Your task to perform on an android device: Clear all items from cart on newegg.com. Search for dell alienware on newegg.com, select the first entry, add it to the cart, then select checkout. Image 0: 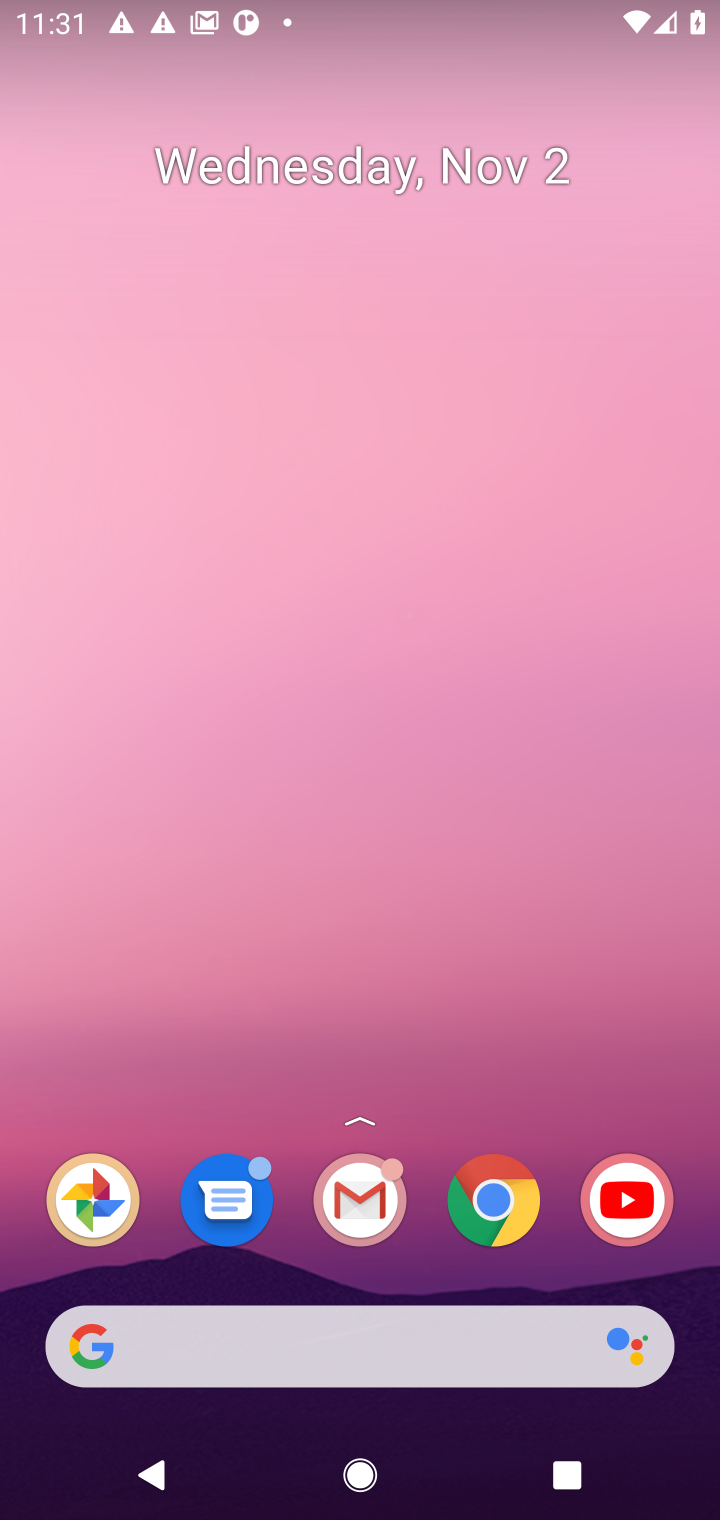
Step 0: click (502, 1211)
Your task to perform on an android device: Clear all items from cart on newegg.com. Search for dell alienware on newegg.com, select the first entry, add it to the cart, then select checkout. Image 1: 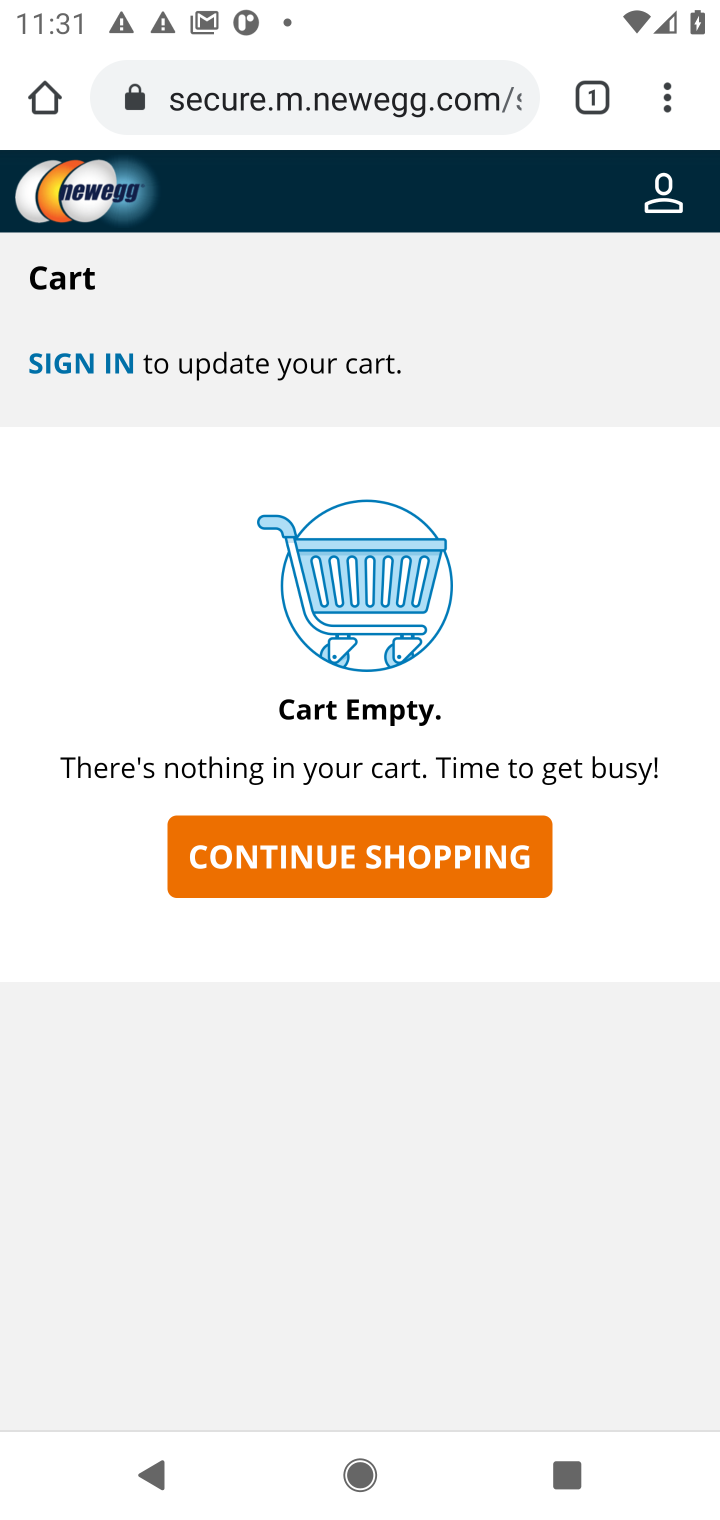
Step 1: press back button
Your task to perform on an android device: Clear all items from cart on newegg.com. Search for dell alienware on newegg.com, select the first entry, add it to the cart, then select checkout. Image 2: 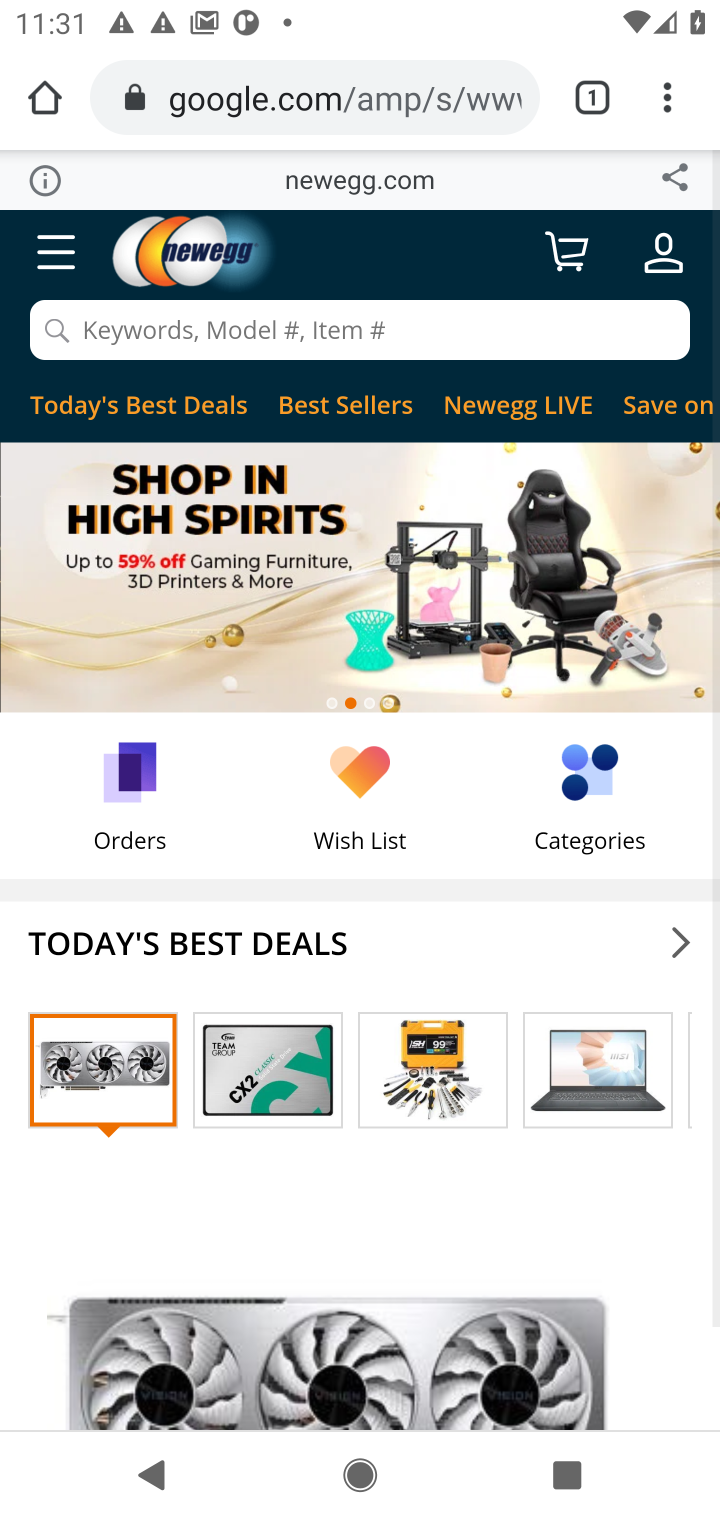
Step 2: click (533, 328)
Your task to perform on an android device: Clear all items from cart on newegg.com. Search for dell alienware on newegg.com, select the first entry, add it to the cart, then select checkout. Image 3: 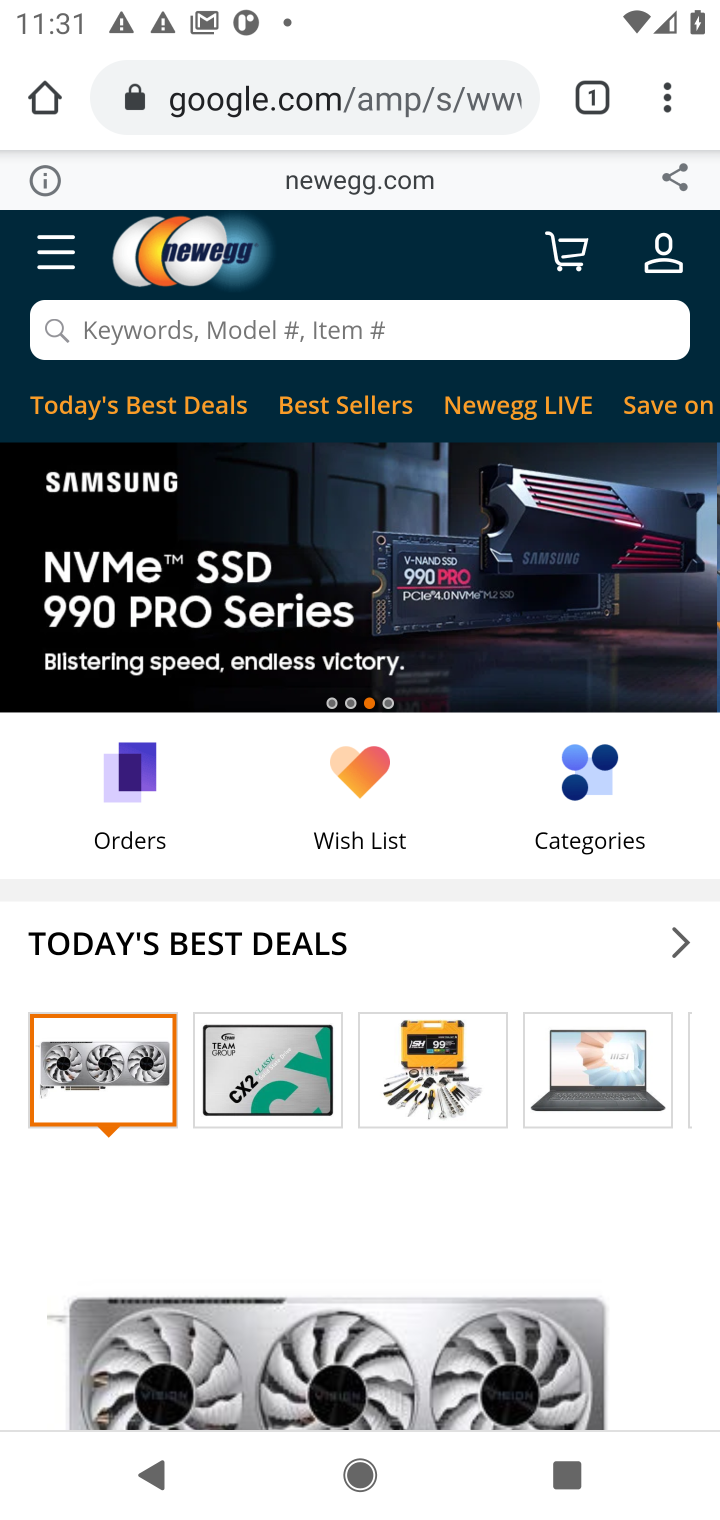
Step 3: click (502, 328)
Your task to perform on an android device: Clear all items from cart on newegg.com. Search for dell alienware on newegg.com, select the first entry, add it to the cart, then select checkout. Image 4: 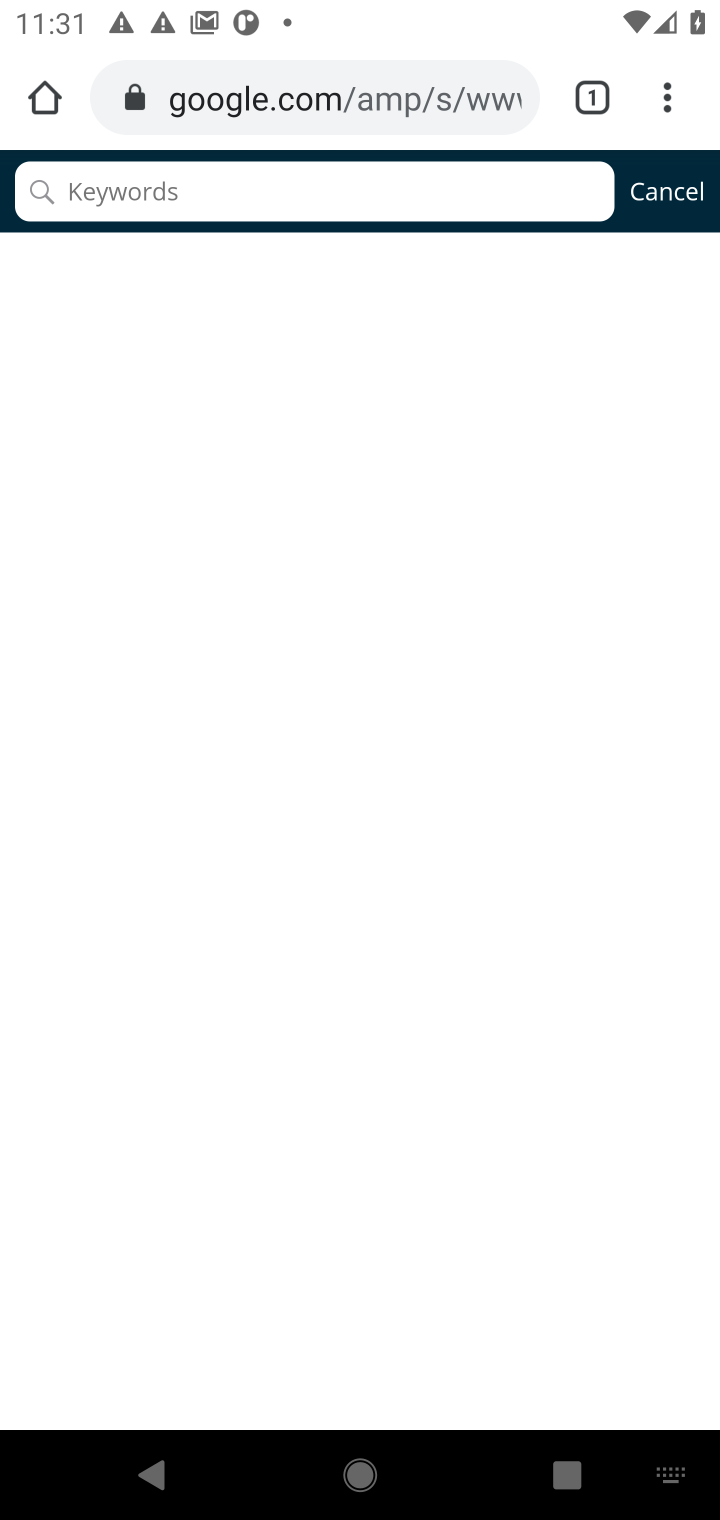
Step 4: type "dell alienware"
Your task to perform on an android device: Clear all items from cart on newegg.com. Search for dell alienware on newegg.com, select the first entry, add it to the cart, then select checkout. Image 5: 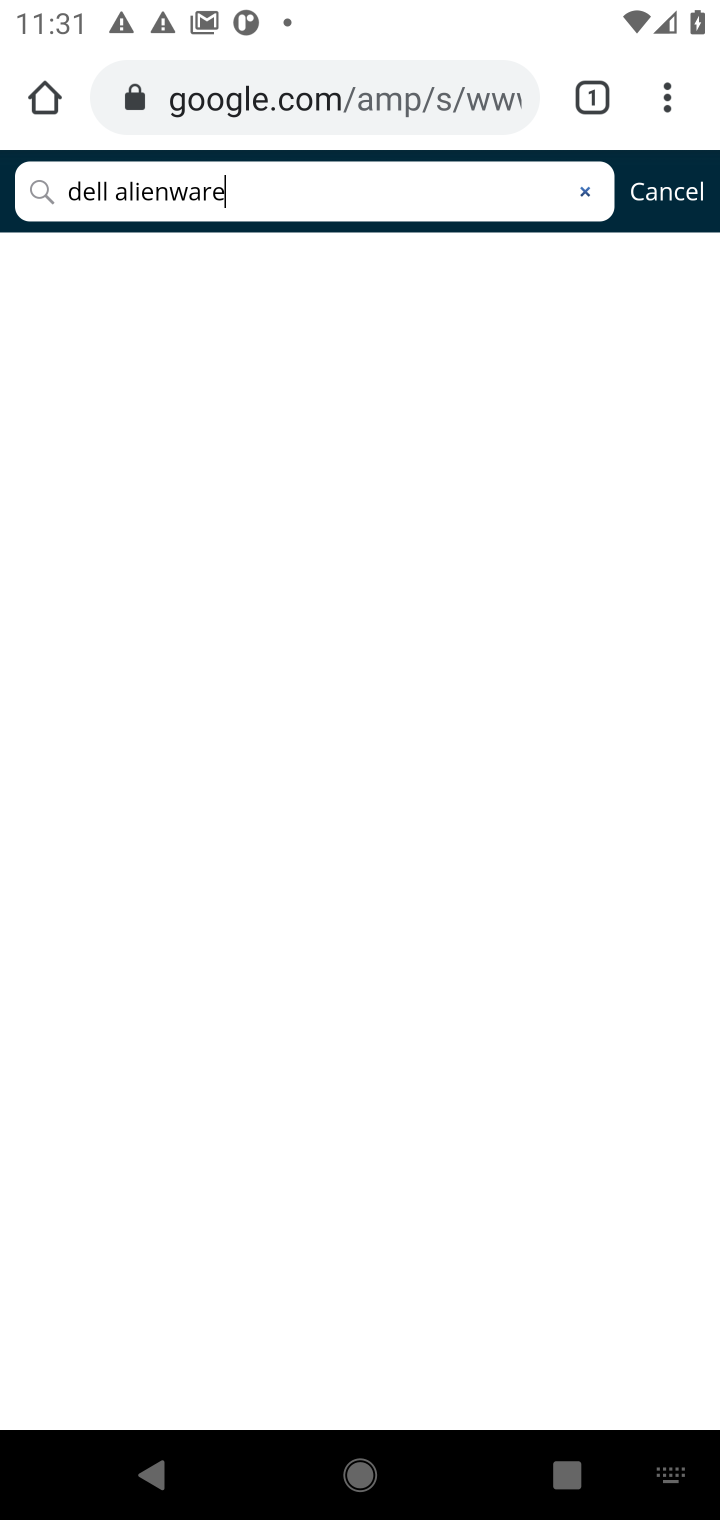
Step 5: press enter
Your task to perform on an android device: Clear all items from cart on newegg.com. Search for dell alienware on newegg.com, select the first entry, add it to the cart, then select checkout. Image 6: 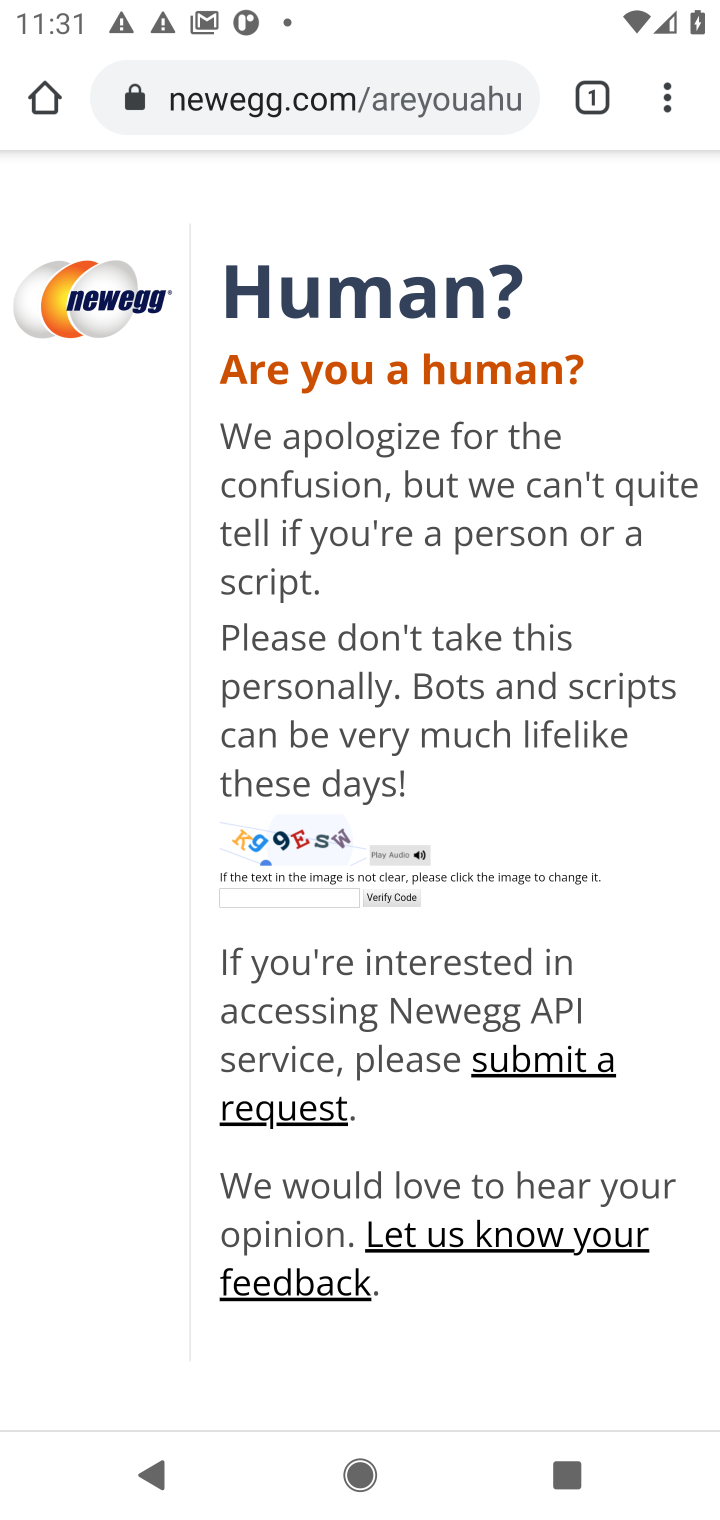
Step 6: press back button
Your task to perform on an android device: Clear all items from cart on newegg.com. Search for dell alienware on newegg.com, select the first entry, add it to the cart, then select checkout. Image 7: 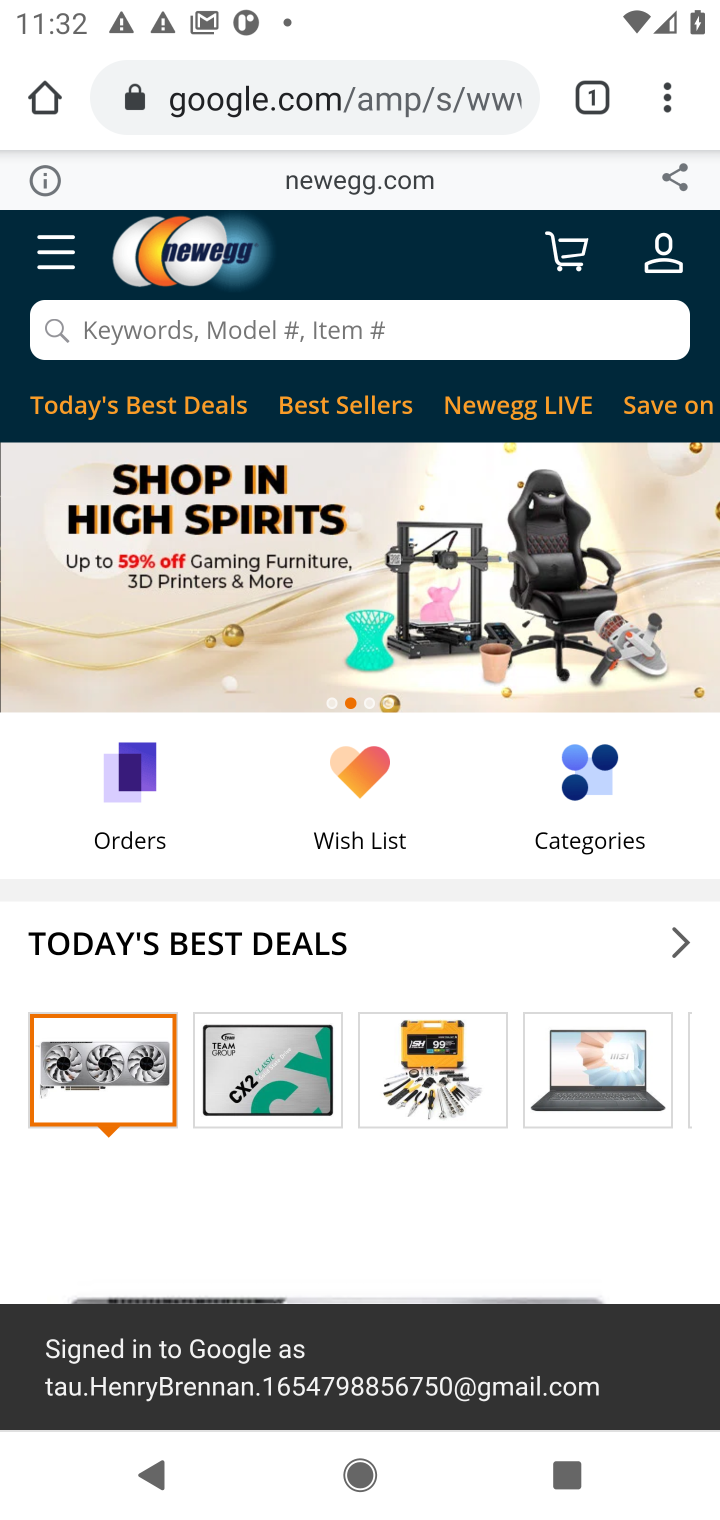
Step 7: click (477, 337)
Your task to perform on an android device: Clear all items from cart on newegg.com. Search for dell alienware on newegg.com, select the first entry, add it to the cart, then select checkout. Image 8: 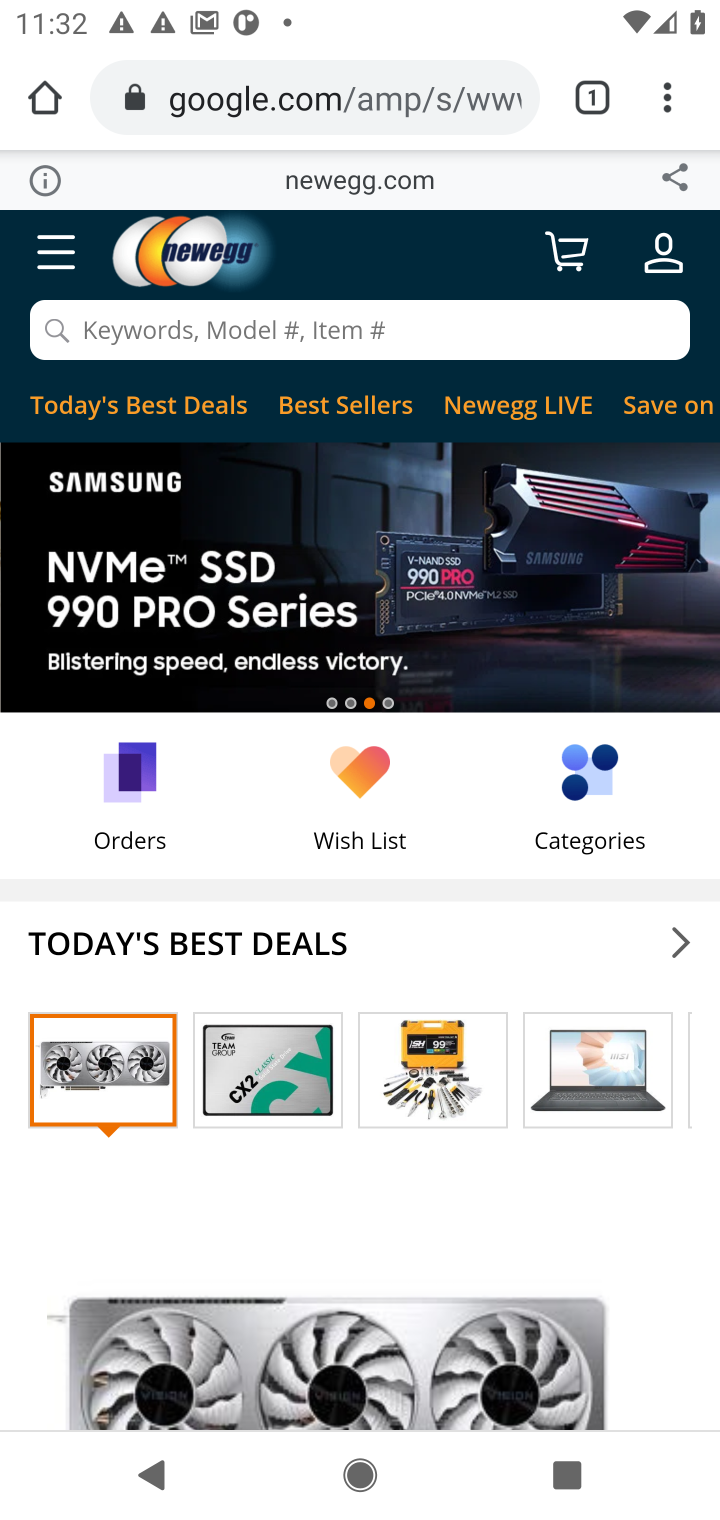
Step 8: press enter
Your task to perform on an android device: Clear all items from cart on newegg.com. Search for dell alienware on newegg.com, select the first entry, add it to the cart, then select checkout. Image 9: 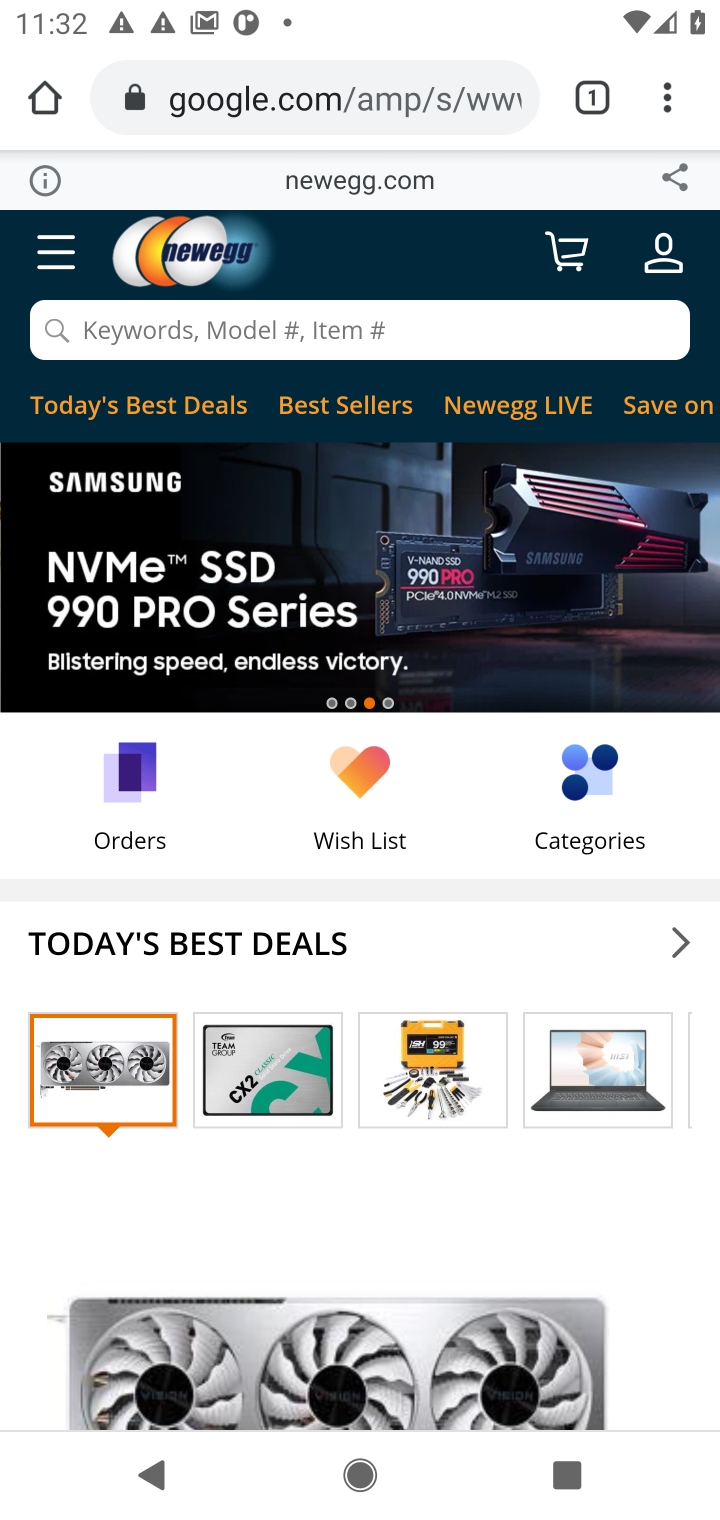
Step 9: type "dell alienware"
Your task to perform on an android device: Clear all items from cart on newegg.com. Search for dell alienware on newegg.com, select the first entry, add it to the cart, then select checkout. Image 10: 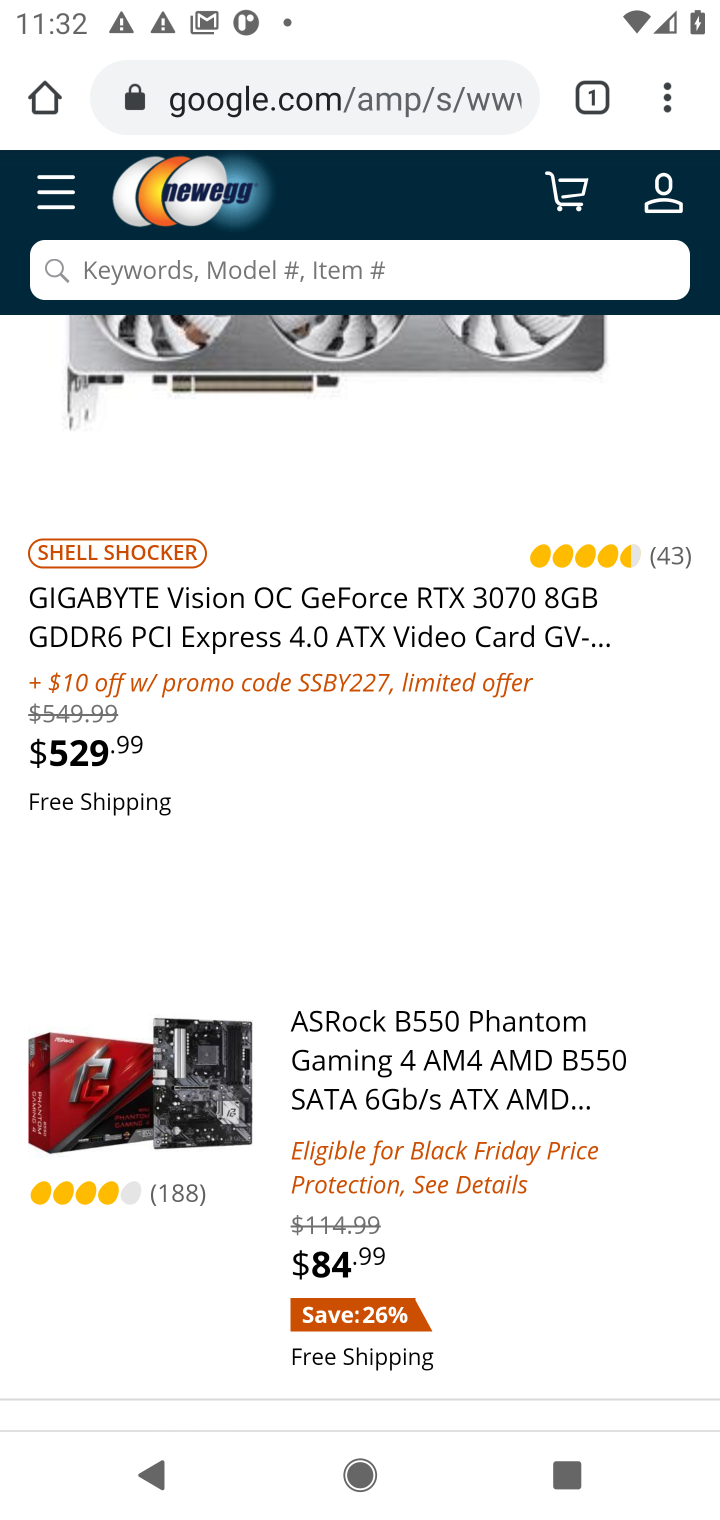
Step 10: task complete